Your task to perform on an android device: see tabs open on other devices in the chrome app Image 0: 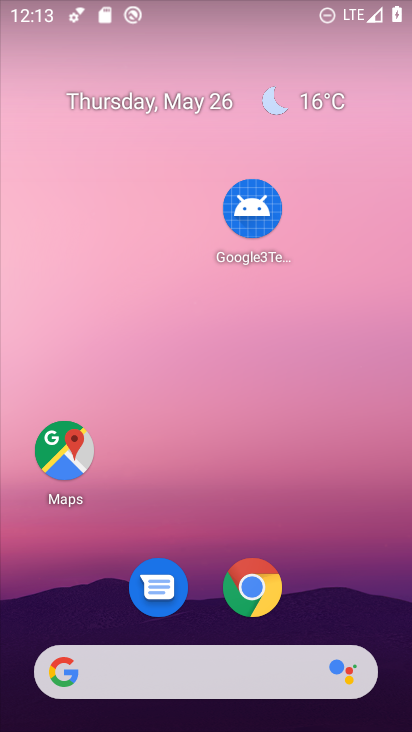
Step 0: click (244, 603)
Your task to perform on an android device: see tabs open on other devices in the chrome app Image 1: 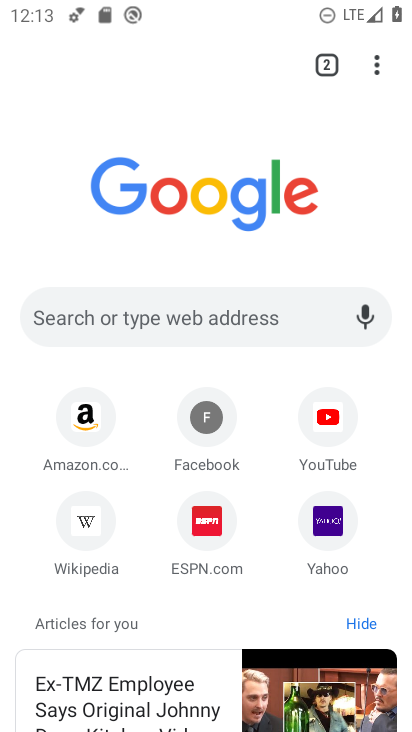
Step 1: task complete